Your task to perform on an android device: add a contact in the contacts app Image 0: 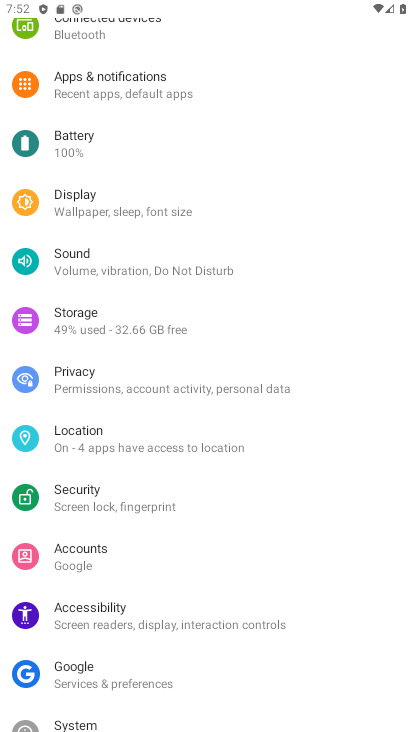
Step 0: press home button
Your task to perform on an android device: add a contact in the contacts app Image 1: 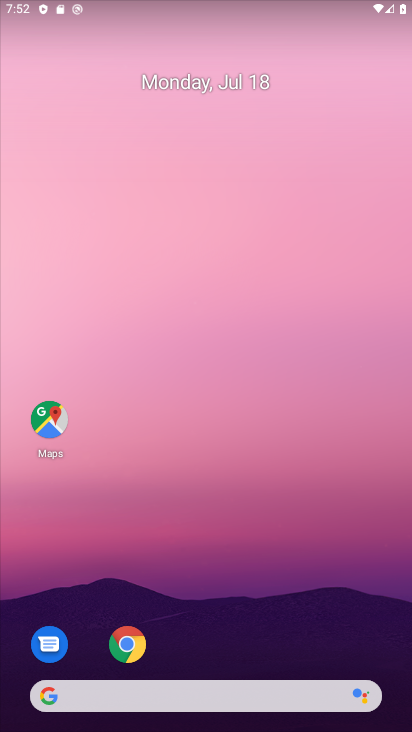
Step 1: drag from (203, 650) to (248, 74)
Your task to perform on an android device: add a contact in the contacts app Image 2: 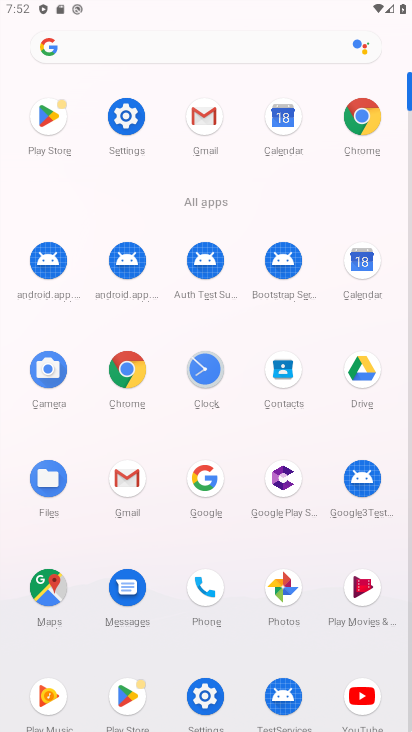
Step 2: click (282, 367)
Your task to perform on an android device: add a contact in the contacts app Image 3: 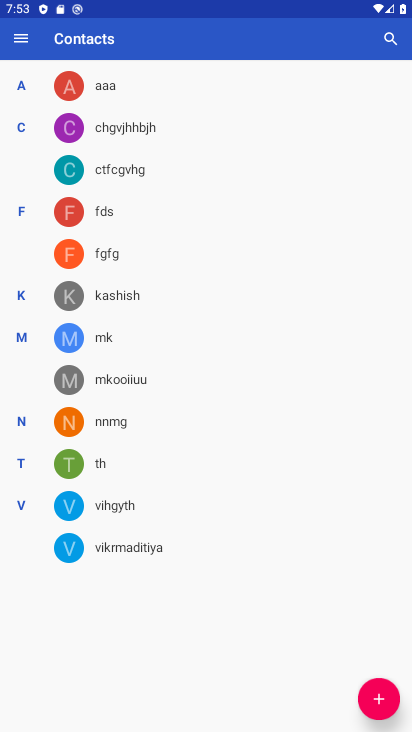
Step 3: click (373, 689)
Your task to perform on an android device: add a contact in the contacts app Image 4: 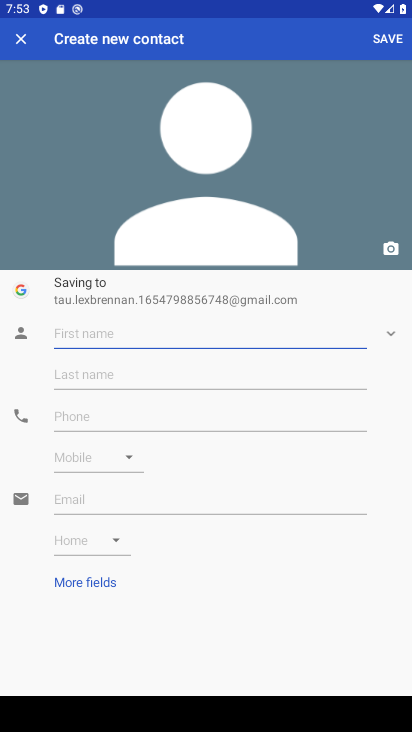
Step 4: type "aprnkt"
Your task to perform on an android device: add a contact in the contacts app Image 5: 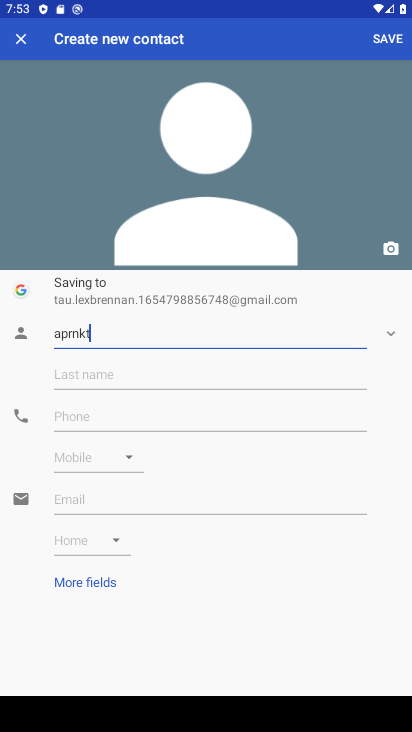
Step 5: click (389, 44)
Your task to perform on an android device: add a contact in the contacts app Image 6: 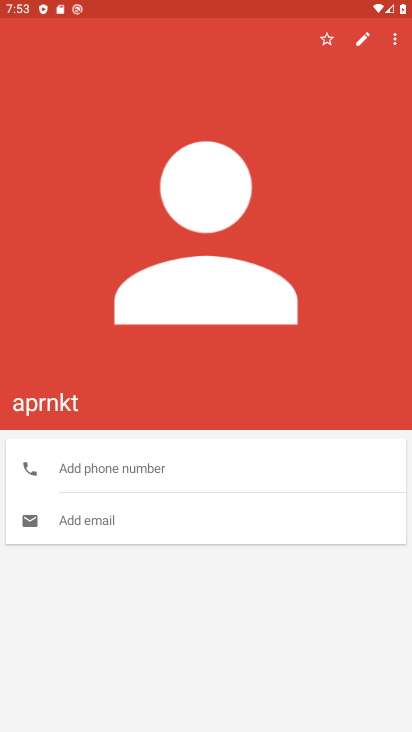
Step 6: task complete